Your task to perform on an android device: visit the assistant section in the google photos Image 0: 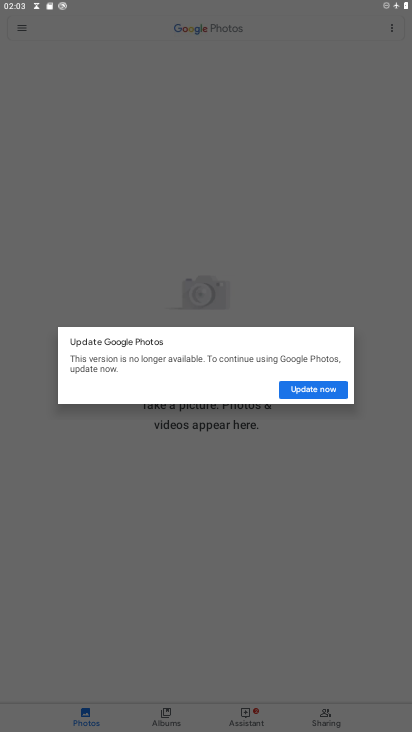
Step 0: click (286, 389)
Your task to perform on an android device: visit the assistant section in the google photos Image 1: 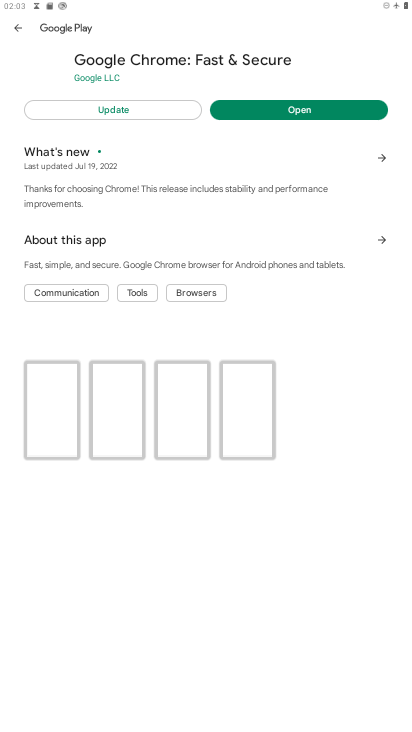
Step 1: press back button
Your task to perform on an android device: visit the assistant section in the google photos Image 2: 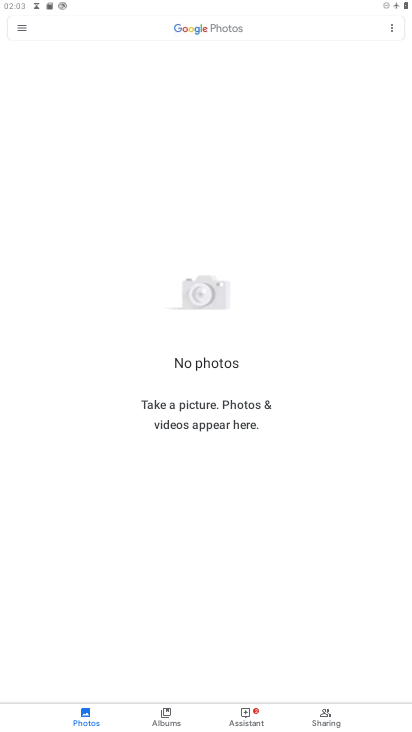
Step 2: click (264, 703)
Your task to perform on an android device: visit the assistant section in the google photos Image 3: 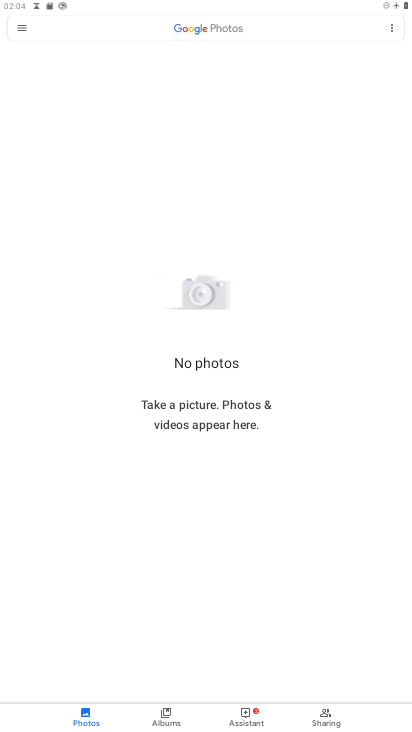
Step 3: click (239, 722)
Your task to perform on an android device: visit the assistant section in the google photos Image 4: 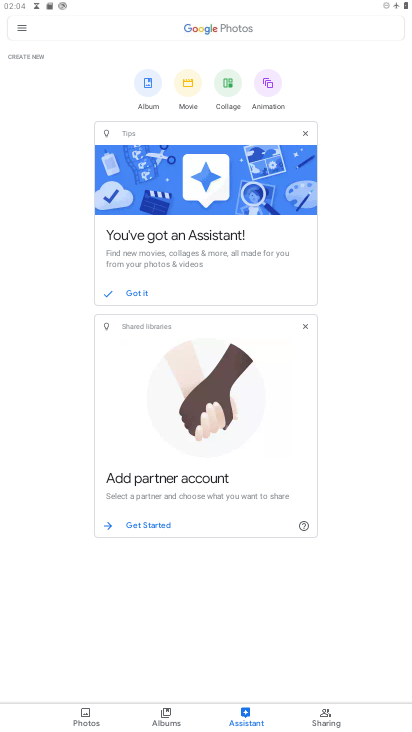
Step 4: task complete